Your task to perform on an android device: uninstall "Lyft - Rideshare, Bikes, Scooters & Transit" Image 0: 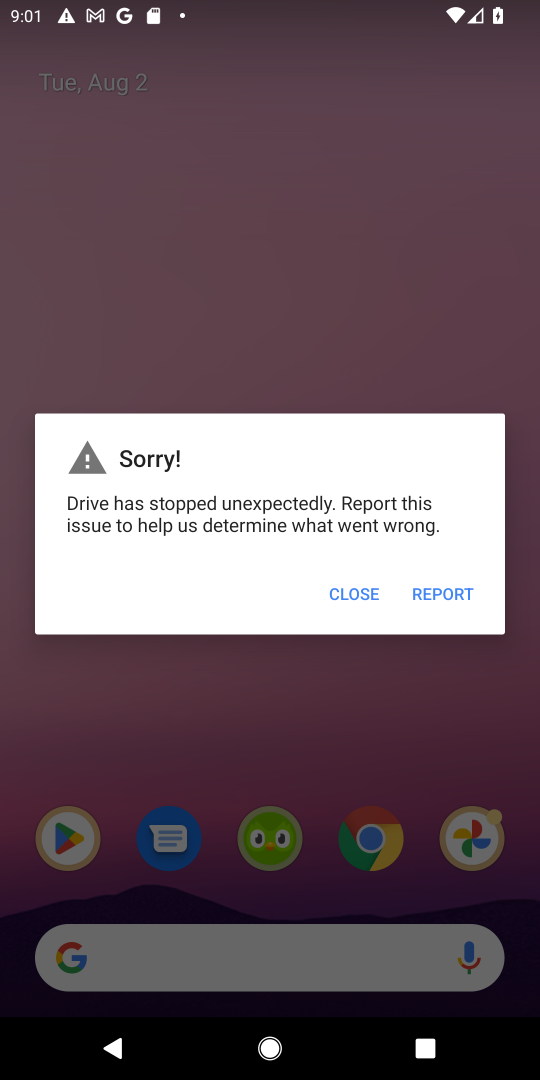
Step 0: press home button
Your task to perform on an android device: uninstall "Lyft - Rideshare, Bikes, Scooters & Transit" Image 1: 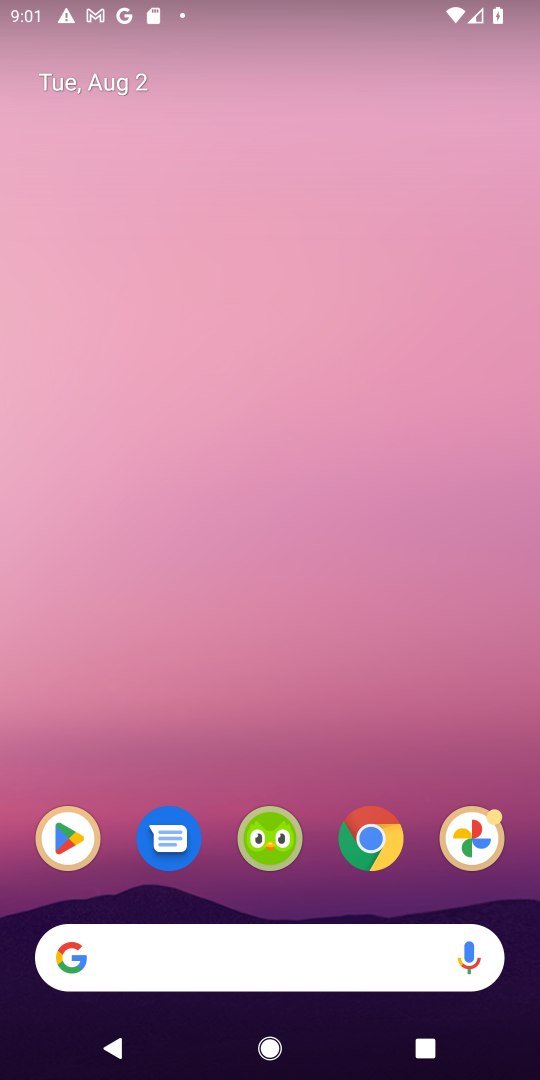
Step 1: drag from (308, 693) to (337, 155)
Your task to perform on an android device: uninstall "Lyft - Rideshare, Bikes, Scooters & Transit" Image 2: 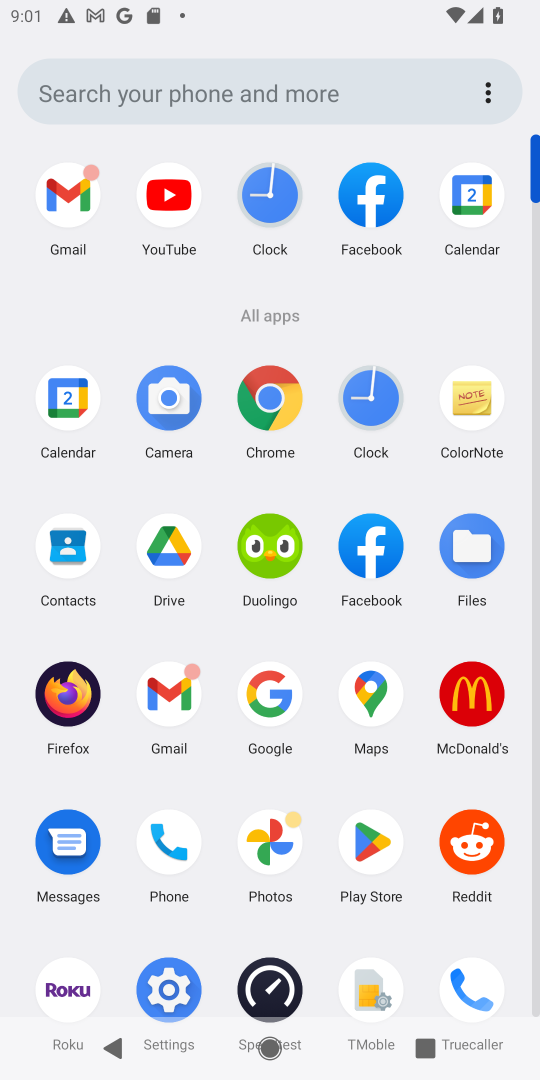
Step 2: click (371, 847)
Your task to perform on an android device: uninstall "Lyft - Rideshare, Bikes, Scooters & Transit" Image 3: 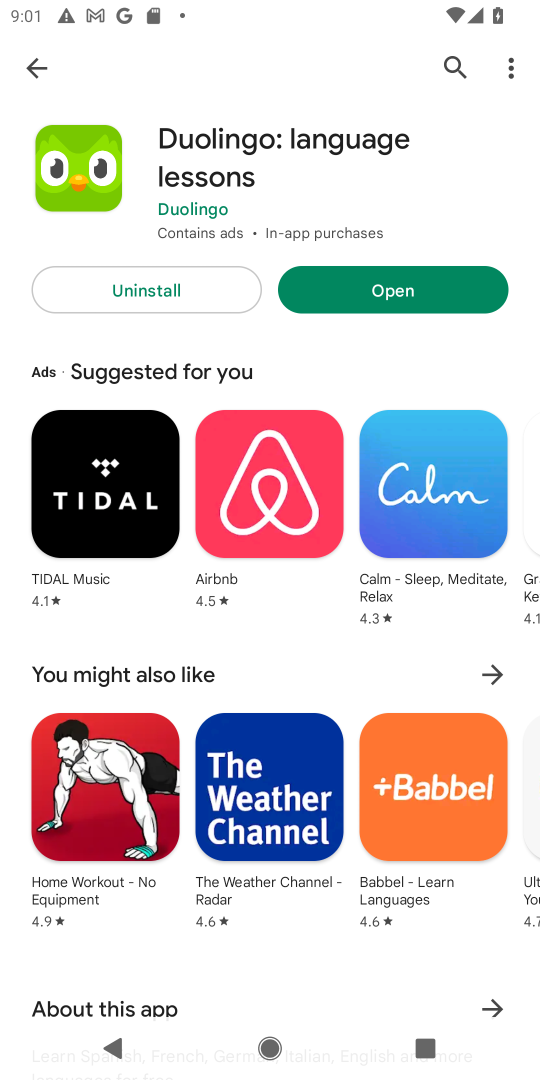
Step 3: click (444, 59)
Your task to perform on an android device: uninstall "Lyft - Rideshare, Bikes, Scooters & Transit" Image 4: 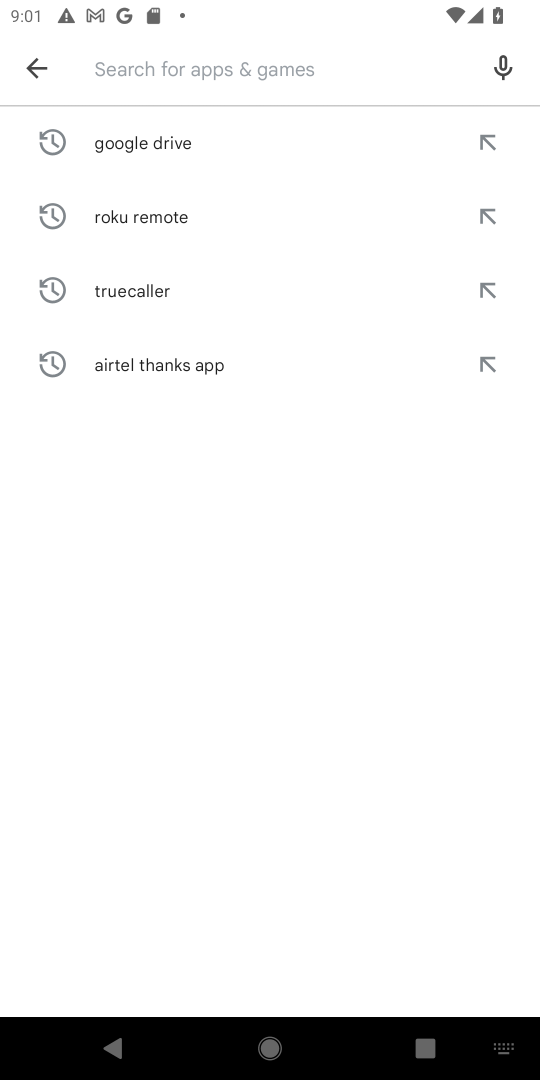
Step 4: click (345, 75)
Your task to perform on an android device: uninstall "Lyft - Rideshare, Bikes, Scooters & Transit" Image 5: 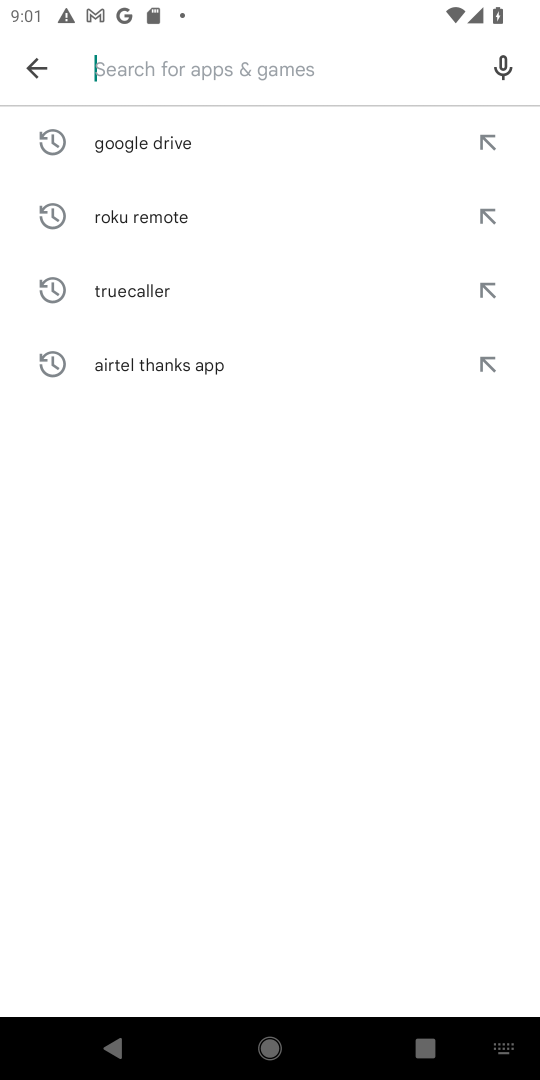
Step 5: type "Lyft - Rideshare, Bikes, Scooters & Transit"
Your task to perform on an android device: uninstall "Lyft - Rideshare, Bikes, Scooters & Transit" Image 6: 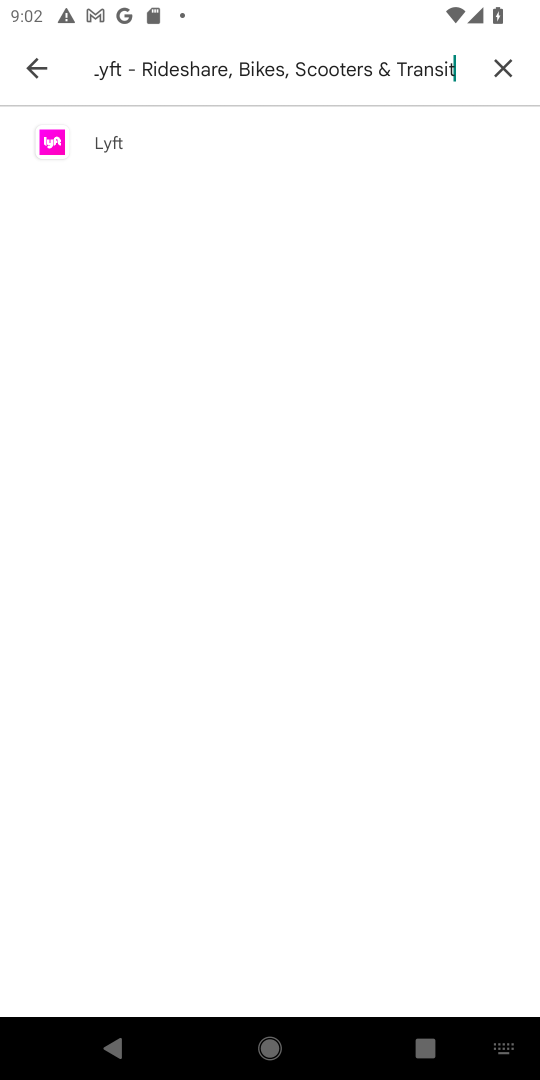
Step 6: click (113, 141)
Your task to perform on an android device: uninstall "Lyft - Rideshare, Bikes, Scooters & Transit" Image 7: 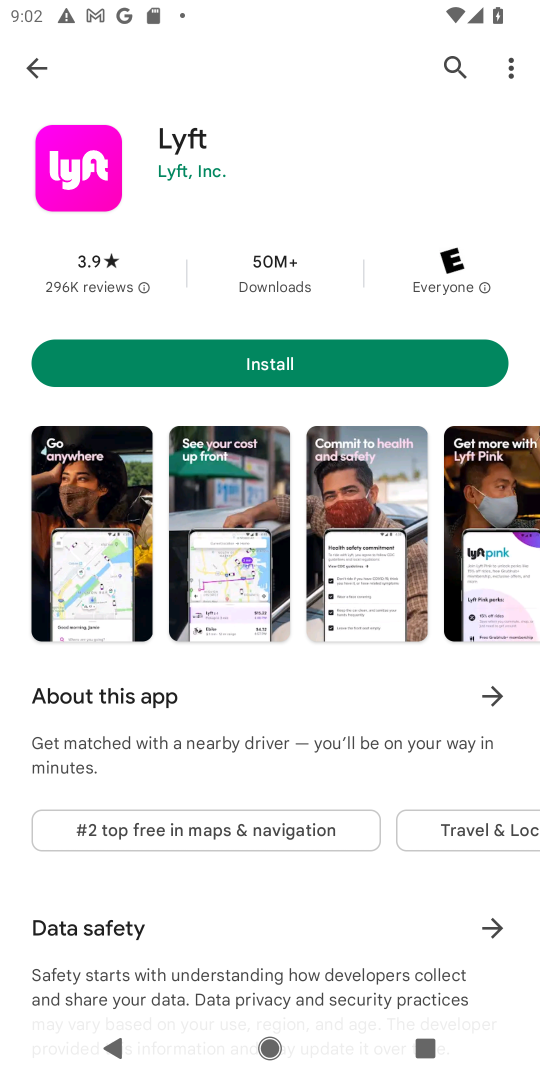
Step 7: task complete